Your task to perform on an android device: Open Youtube and go to "Your channel" Image 0: 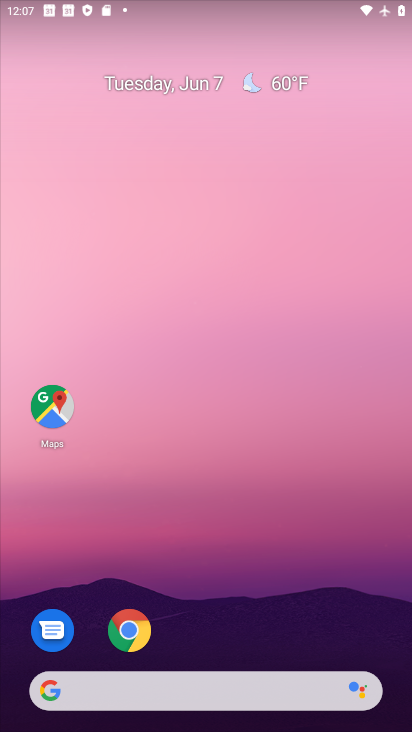
Step 0: drag from (324, 561) to (282, 105)
Your task to perform on an android device: Open Youtube and go to "Your channel" Image 1: 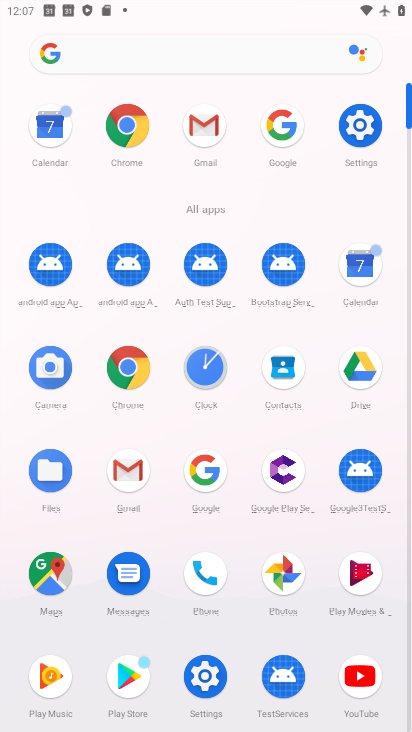
Step 1: click (367, 676)
Your task to perform on an android device: Open Youtube and go to "Your channel" Image 2: 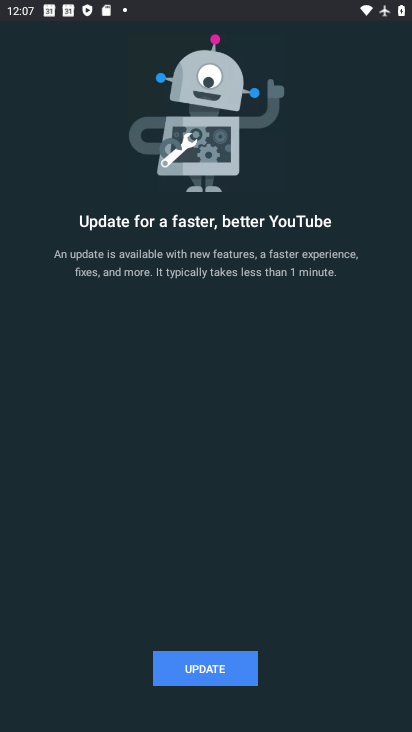
Step 2: click (202, 674)
Your task to perform on an android device: Open Youtube and go to "Your channel" Image 3: 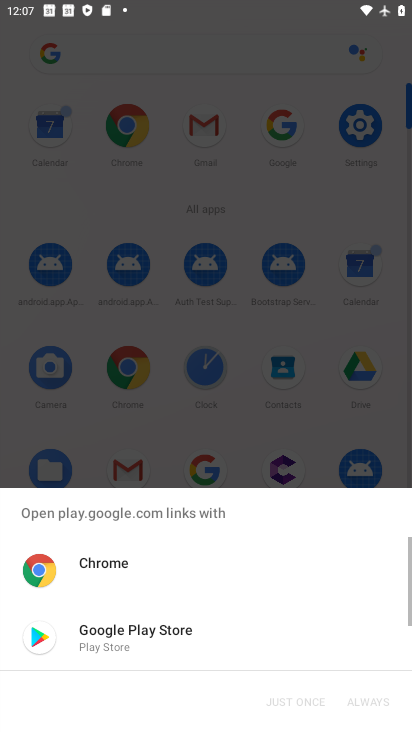
Step 3: click (131, 636)
Your task to perform on an android device: Open Youtube and go to "Your channel" Image 4: 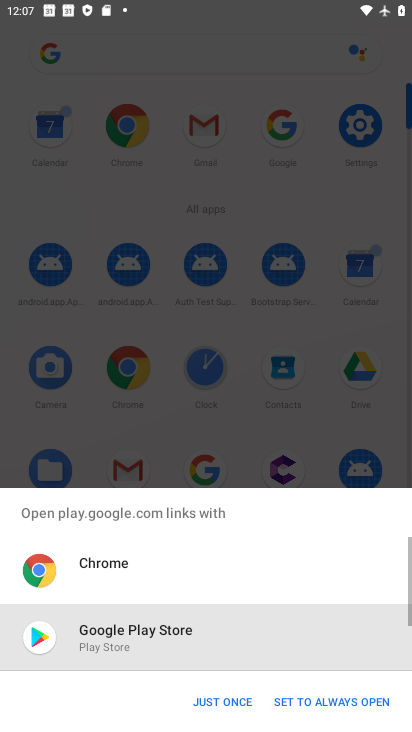
Step 4: click (204, 697)
Your task to perform on an android device: Open Youtube and go to "Your channel" Image 5: 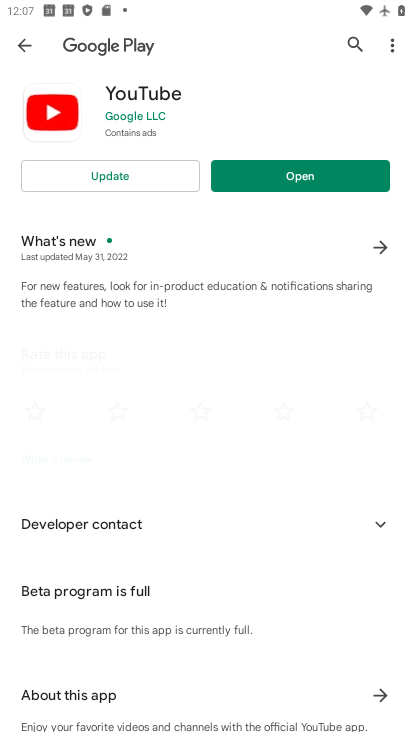
Step 5: click (112, 186)
Your task to perform on an android device: Open Youtube and go to "Your channel" Image 6: 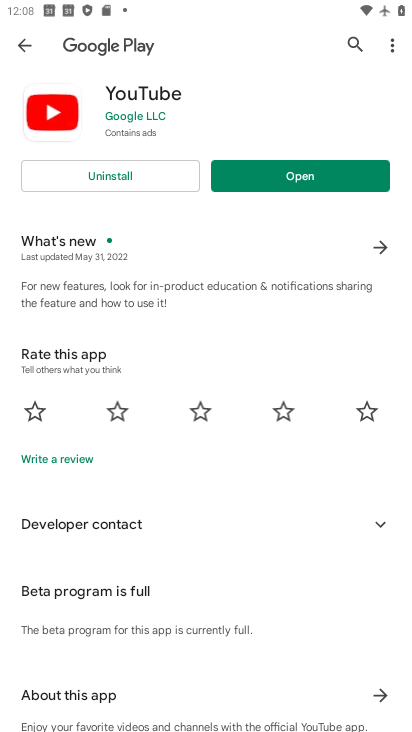
Step 6: click (303, 178)
Your task to perform on an android device: Open Youtube and go to "Your channel" Image 7: 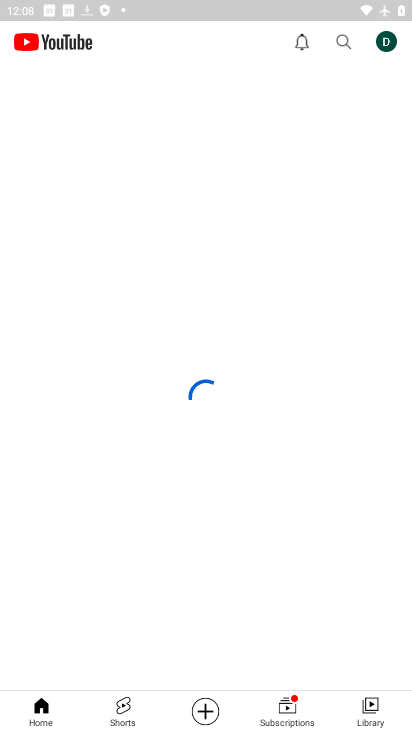
Step 7: click (393, 43)
Your task to perform on an android device: Open Youtube and go to "Your channel" Image 8: 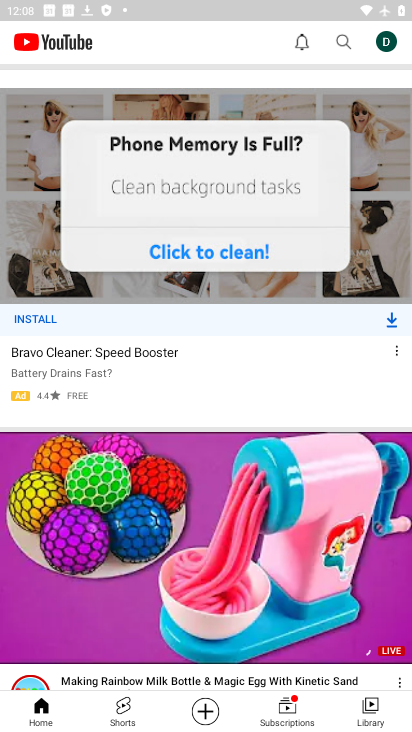
Step 8: click (382, 41)
Your task to perform on an android device: Open Youtube and go to "Your channel" Image 9: 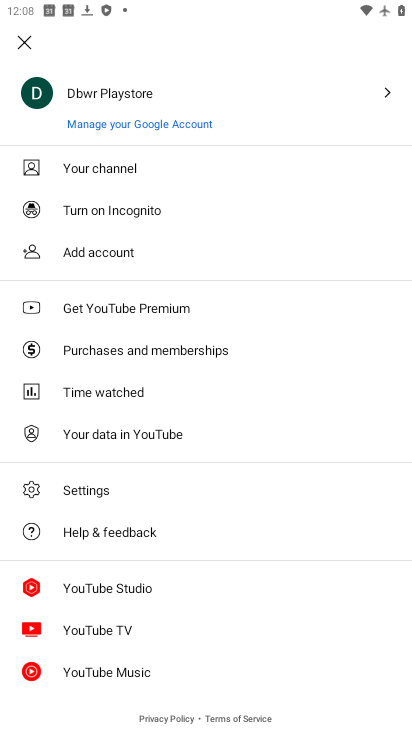
Step 9: click (119, 179)
Your task to perform on an android device: Open Youtube and go to "Your channel" Image 10: 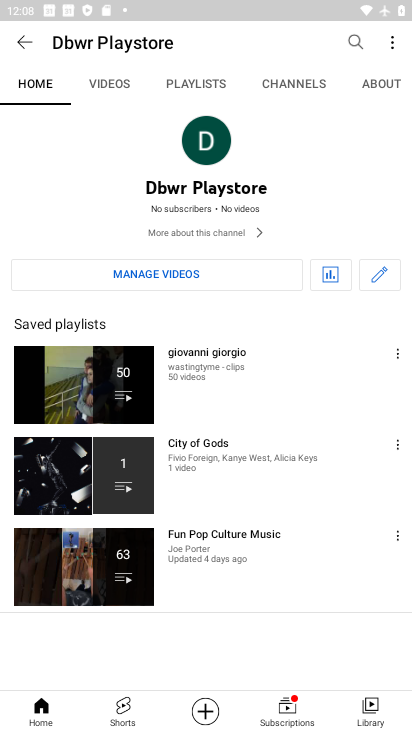
Step 10: task complete